Your task to perform on an android device: change the clock style Image 0: 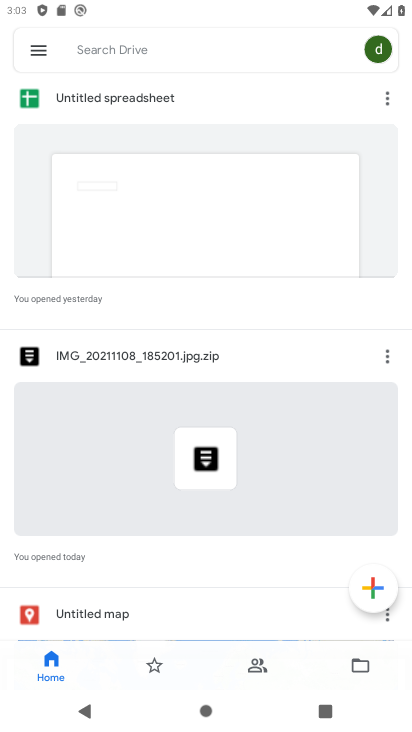
Step 0: press home button
Your task to perform on an android device: change the clock style Image 1: 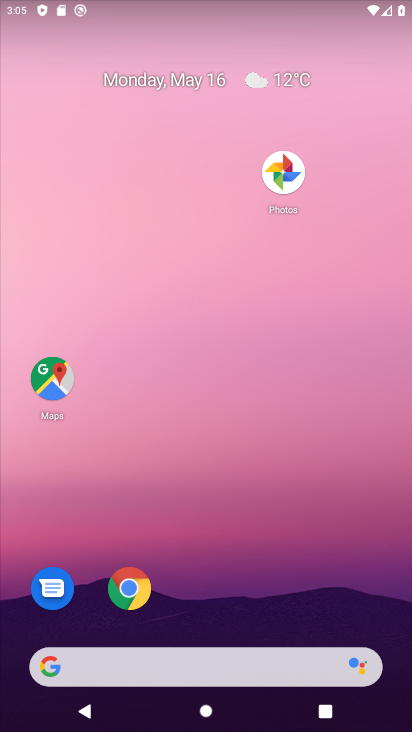
Step 1: drag from (202, 613) to (250, 50)
Your task to perform on an android device: change the clock style Image 2: 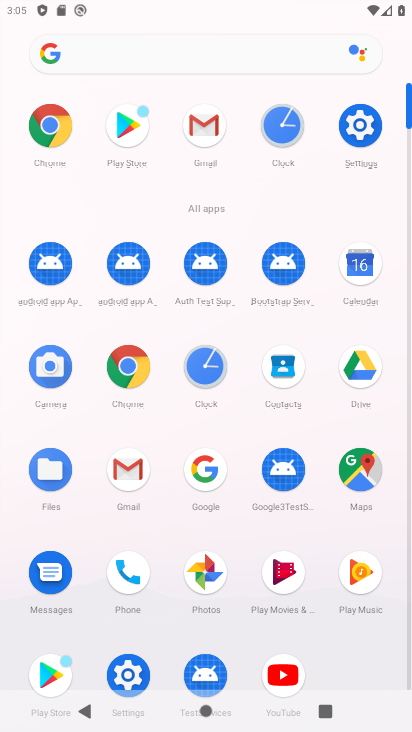
Step 2: click (281, 112)
Your task to perform on an android device: change the clock style Image 3: 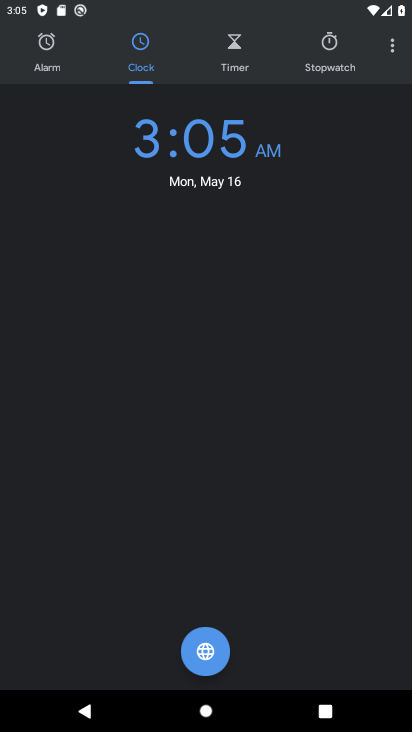
Step 3: click (384, 45)
Your task to perform on an android device: change the clock style Image 4: 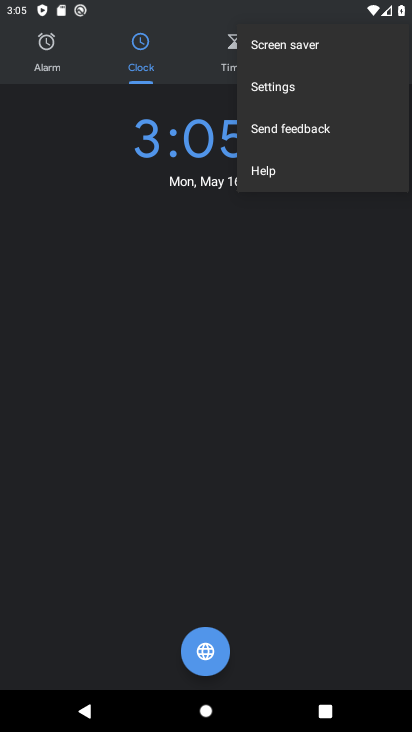
Step 4: click (319, 73)
Your task to perform on an android device: change the clock style Image 5: 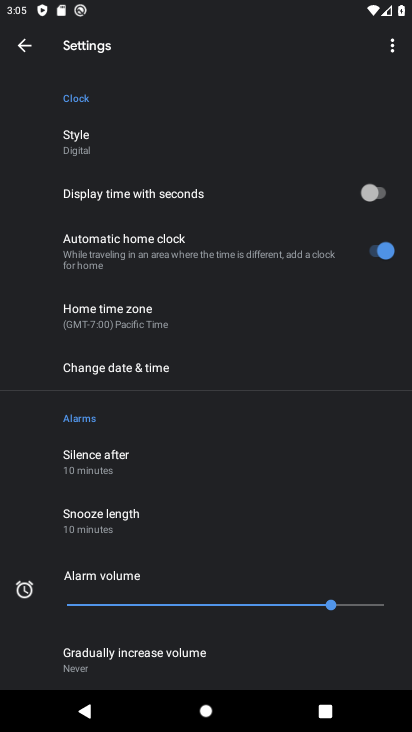
Step 5: click (198, 126)
Your task to perform on an android device: change the clock style Image 6: 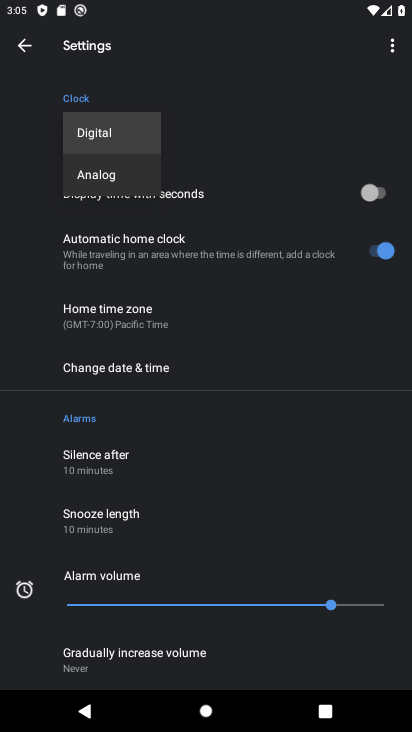
Step 6: click (137, 182)
Your task to perform on an android device: change the clock style Image 7: 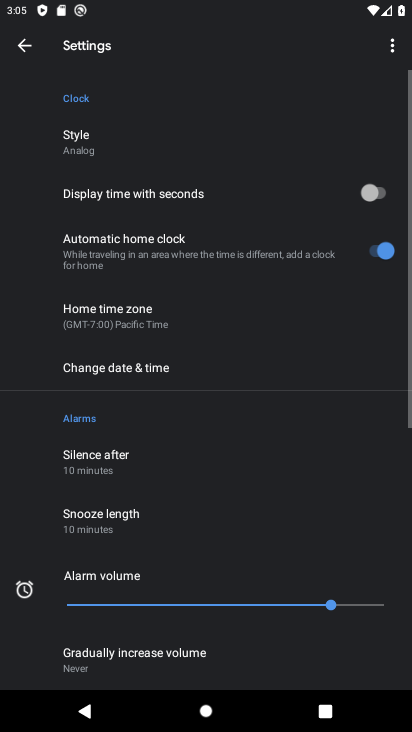
Step 7: task complete